Your task to perform on an android device: Go to Maps Image 0: 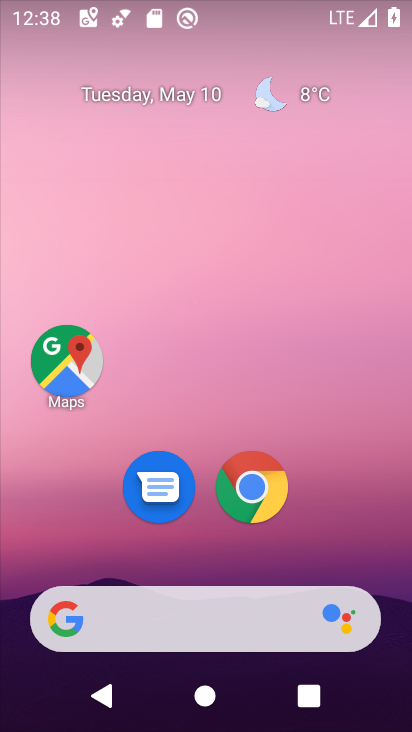
Step 0: click (65, 355)
Your task to perform on an android device: Go to Maps Image 1: 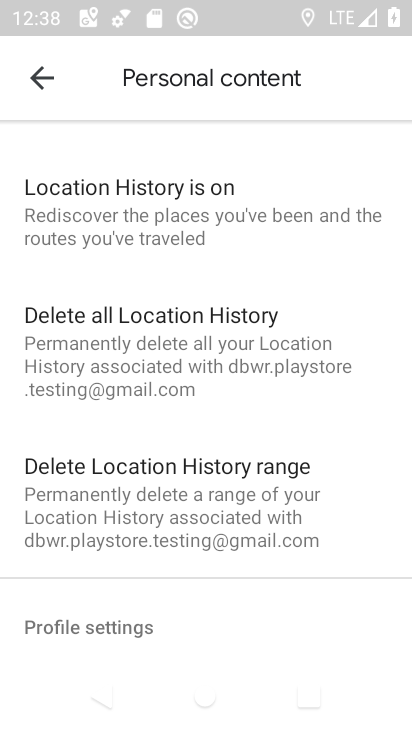
Step 1: click (45, 84)
Your task to perform on an android device: Go to Maps Image 2: 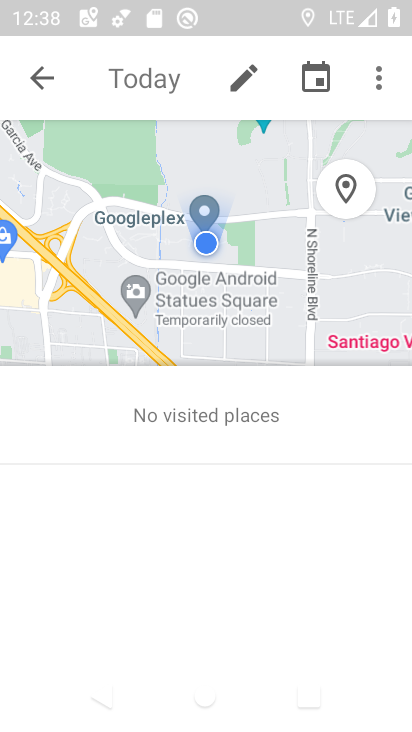
Step 2: click (47, 79)
Your task to perform on an android device: Go to Maps Image 3: 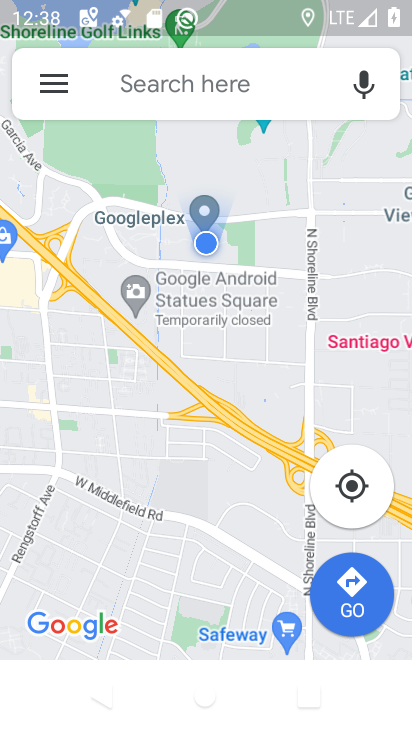
Step 3: task complete